Your task to perform on an android device: Toggle the flashlight Image 0: 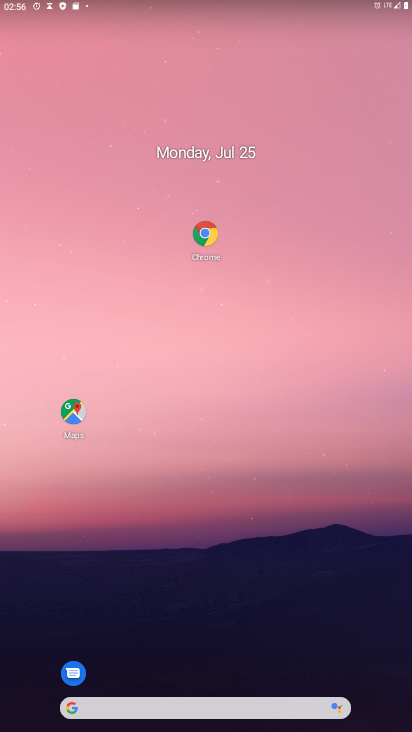
Step 0: drag from (158, 0) to (214, 568)
Your task to perform on an android device: Toggle the flashlight Image 1: 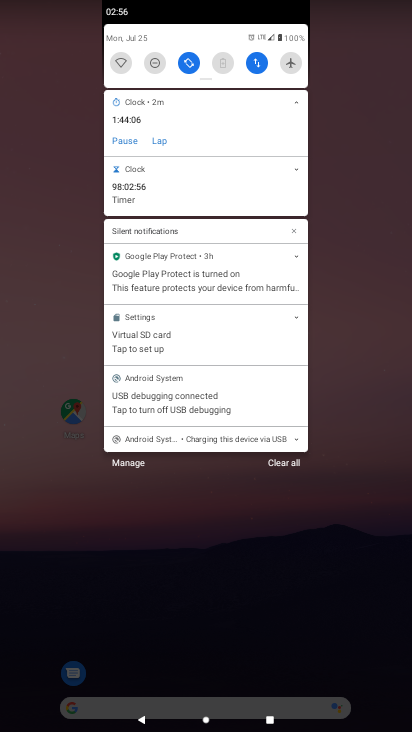
Step 1: task complete